Your task to perform on an android device: turn pop-ups off in chrome Image 0: 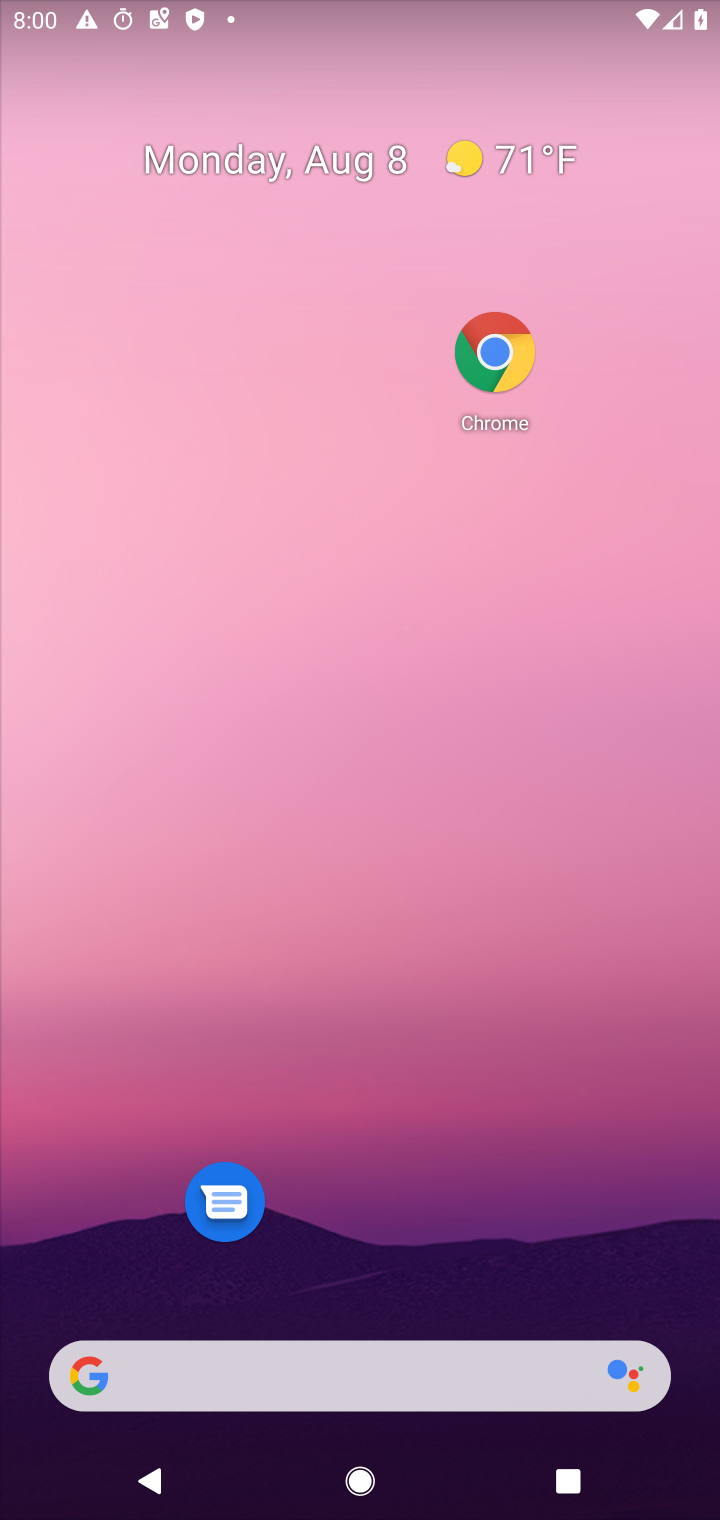
Step 0: drag from (326, 616) to (270, 285)
Your task to perform on an android device: turn pop-ups off in chrome Image 1: 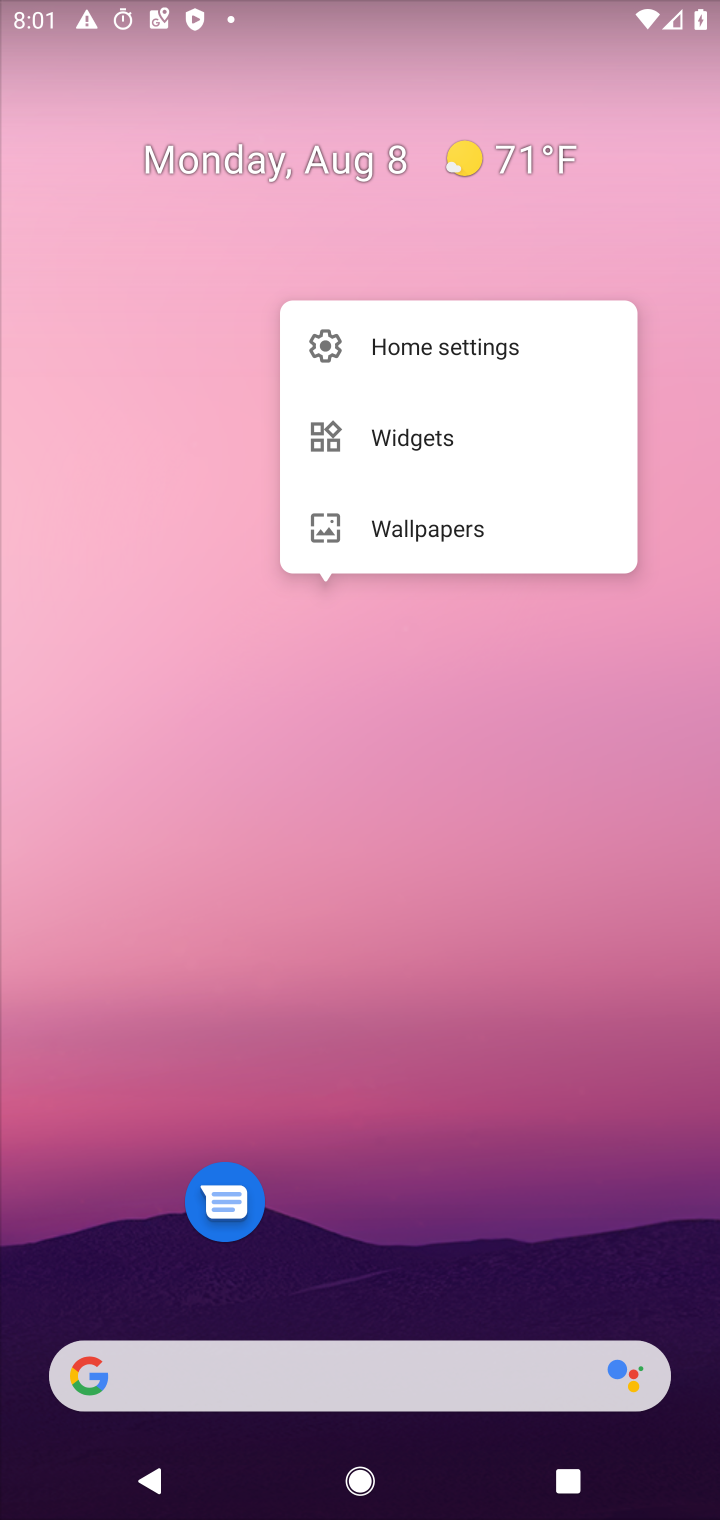
Step 1: click (399, 1175)
Your task to perform on an android device: turn pop-ups off in chrome Image 2: 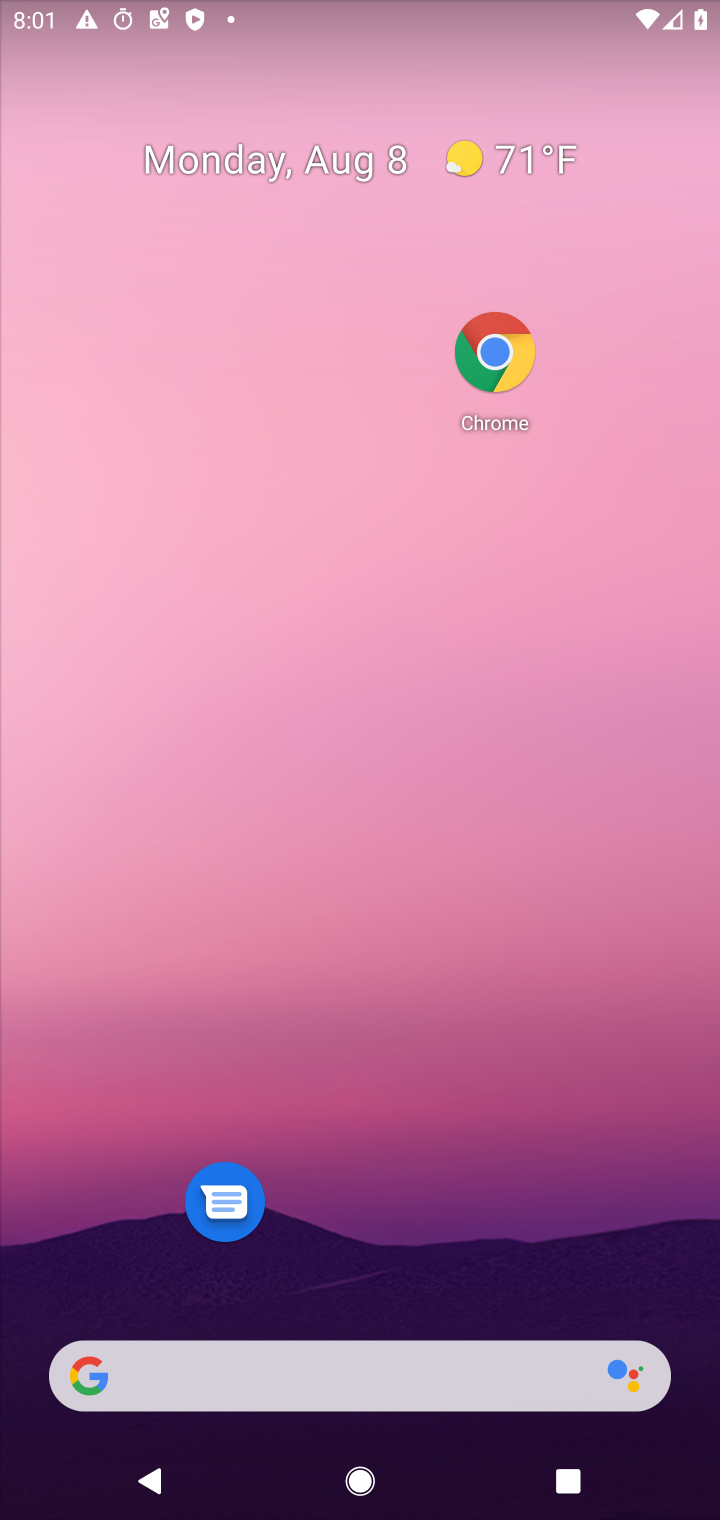
Step 2: click (511, 409)
Your task to perform on an android device: turn pop-ups off in chrome Image 3: 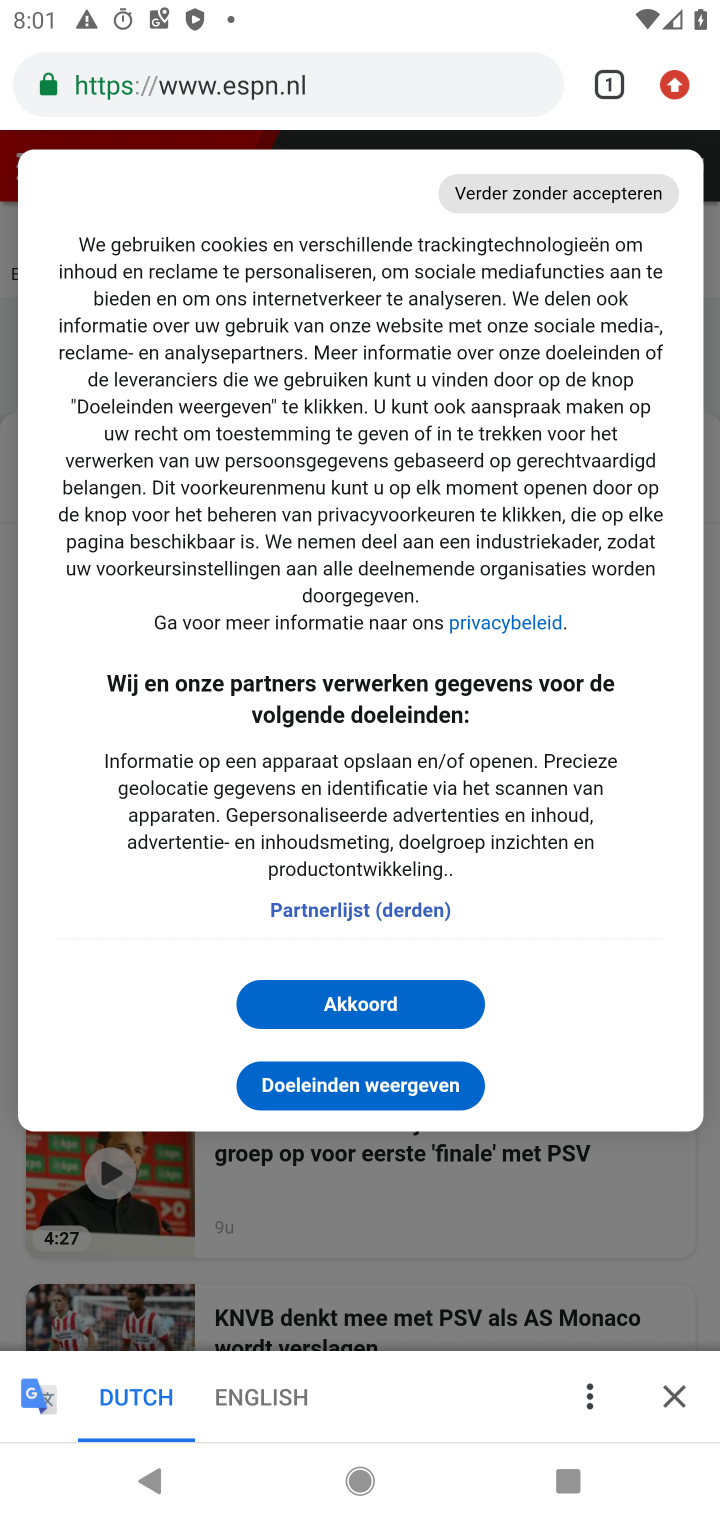
Step 3: click (686, 105)
Your task to perform on an android device: turn pop-ups off in chrome Image 4: 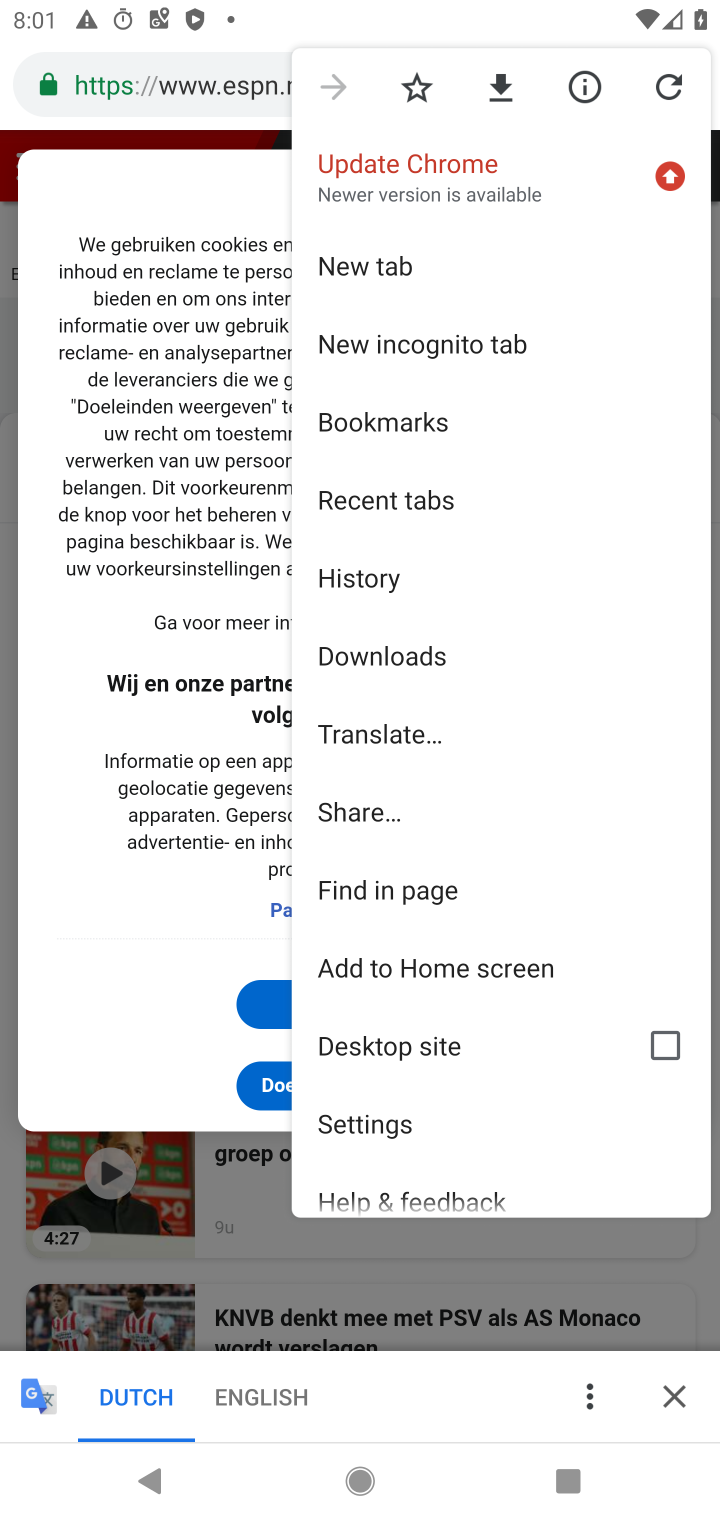
Step 4: click (339, 1119)
Your task to perform on an android device: turn pop-ups off in chrome Image 5: 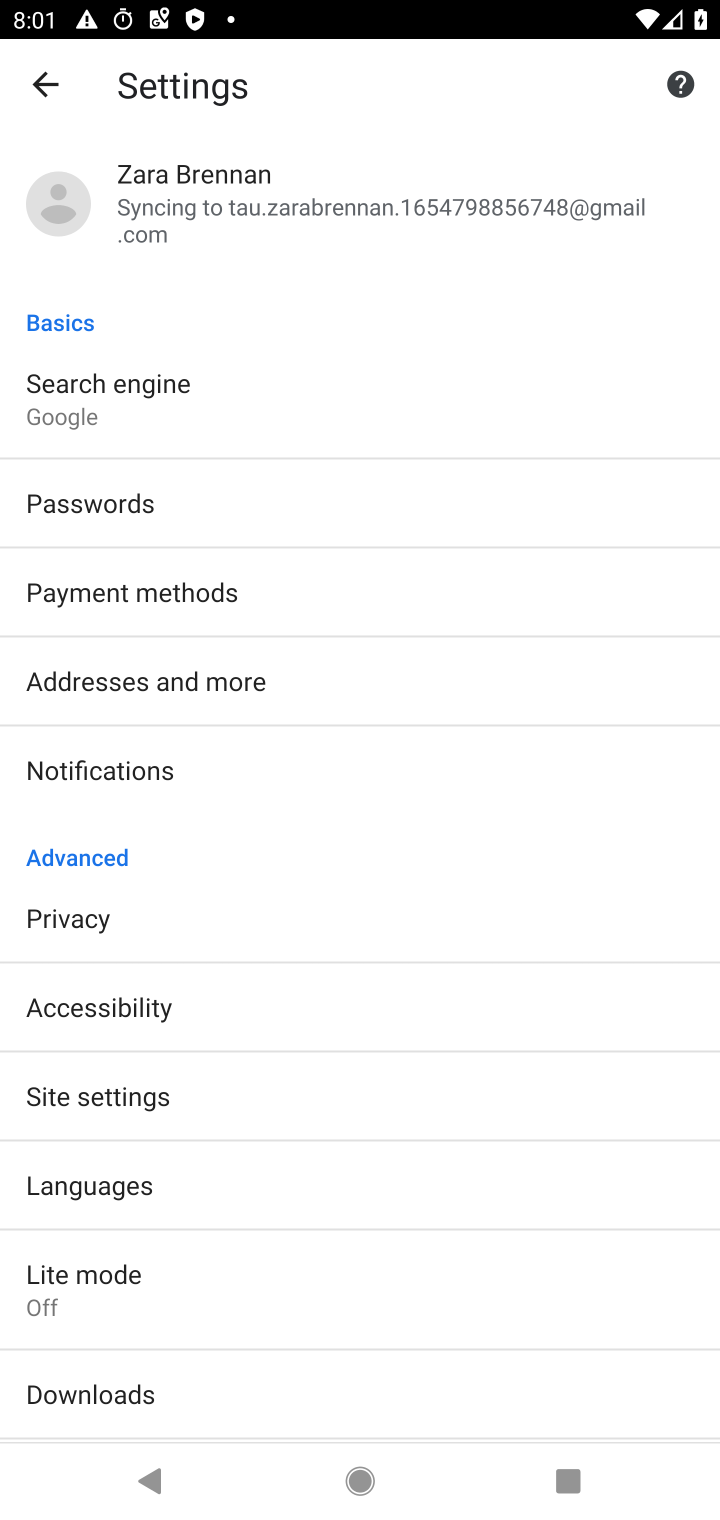
Step 5: click (77, 1080)
Your task to perform on an android device: turn pop-ups off in chrome Image 6: 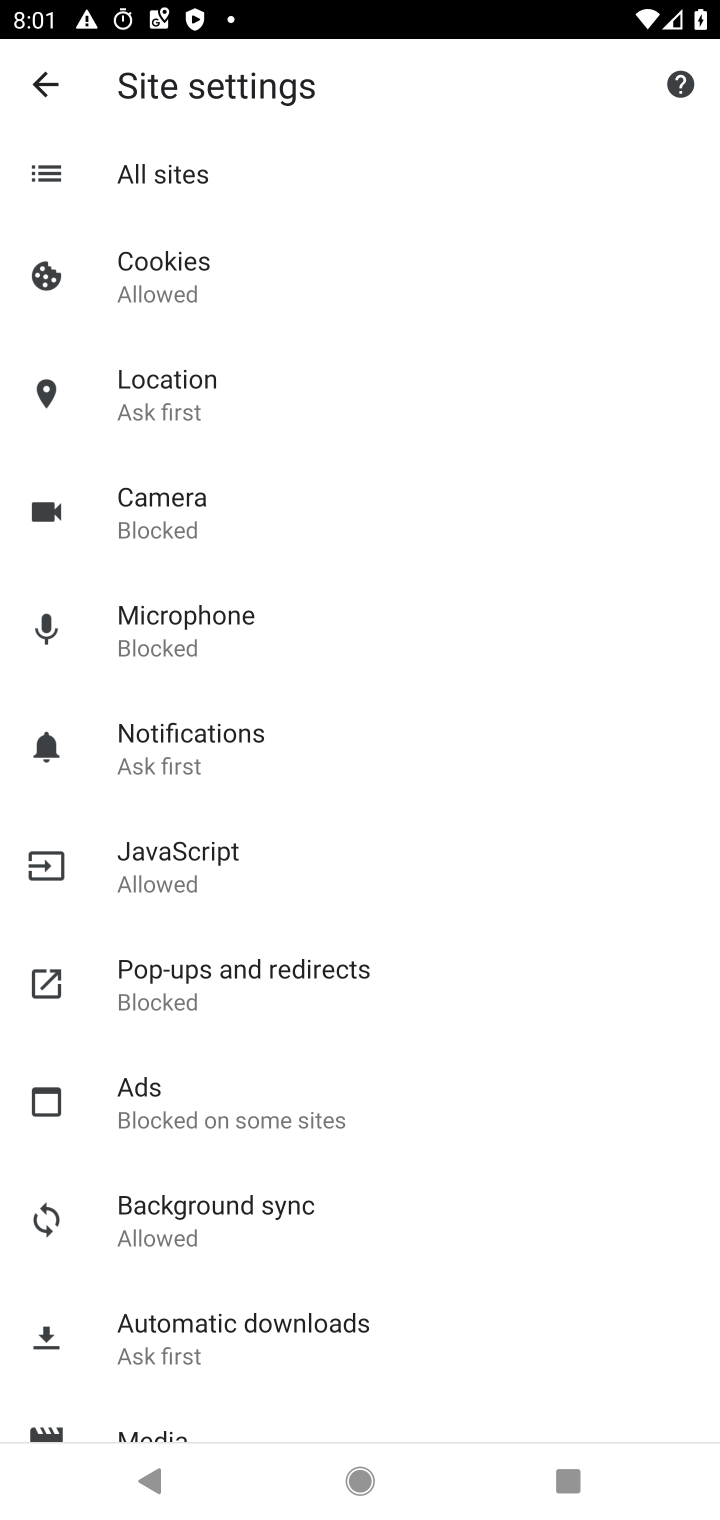
Step 6: click (185, 998)
Your task to perform on an android device: turn pop-ups off in chrome Image 7: 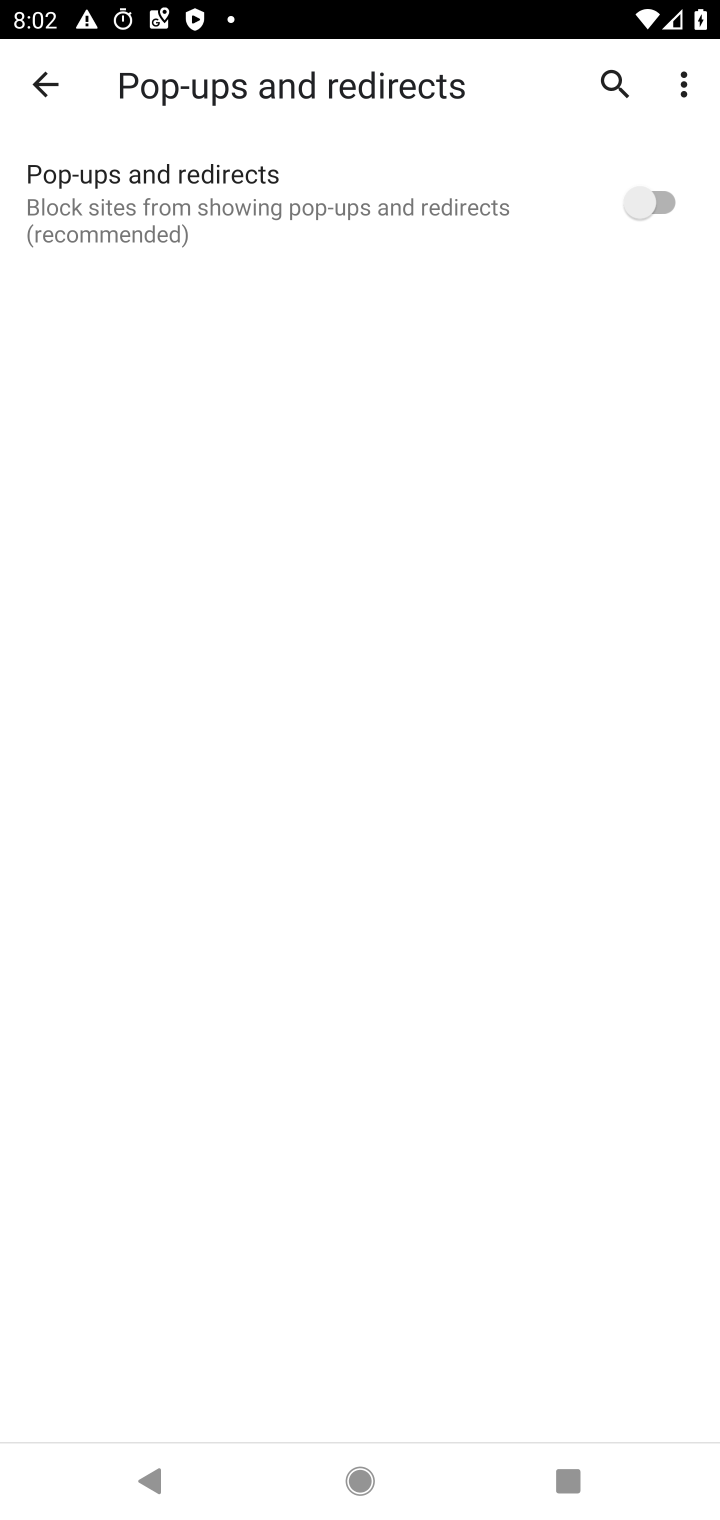
Step 7: task complete